Your task to perform on an android device: turn smart compose on in the gmail app Image 0: 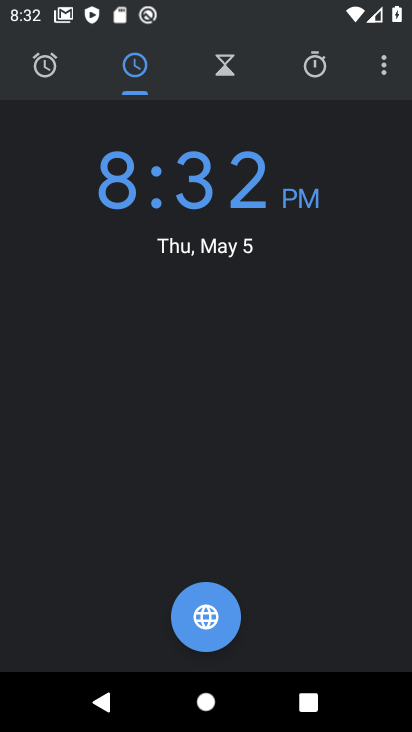
Step 0: press home button
Your task to perform on an android device: turn smart compose on in the gmail app Image 1: 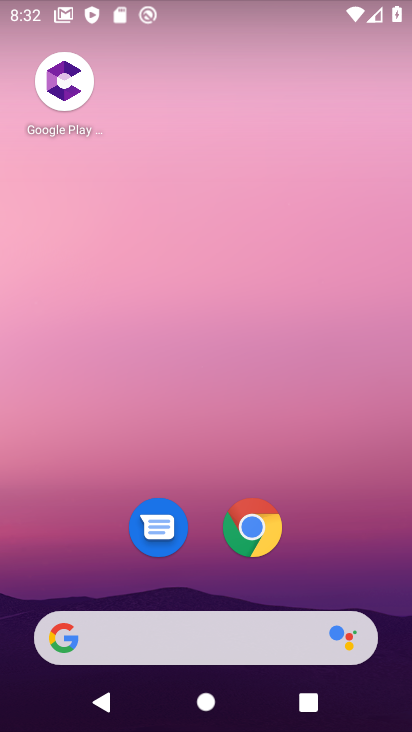
Step 1: drag from (298, 523) to (214, 22)
Your task to perform on an android device: turn smart compose on in the gmail app Image 2: 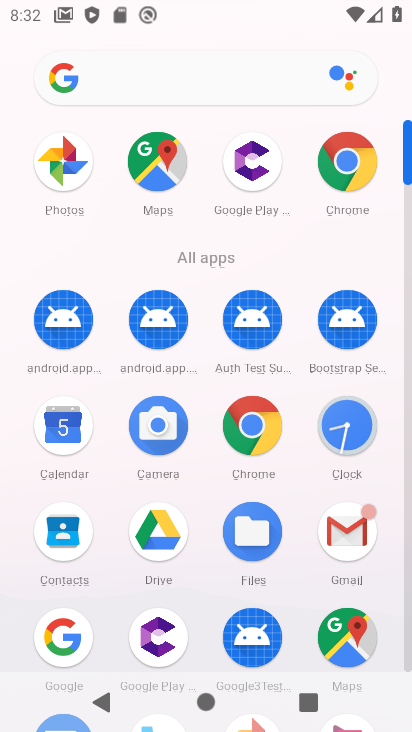
Step 2: click (338, 535)
Your task to perform on an android device: turn smart compose on in the gmail app Image 3: 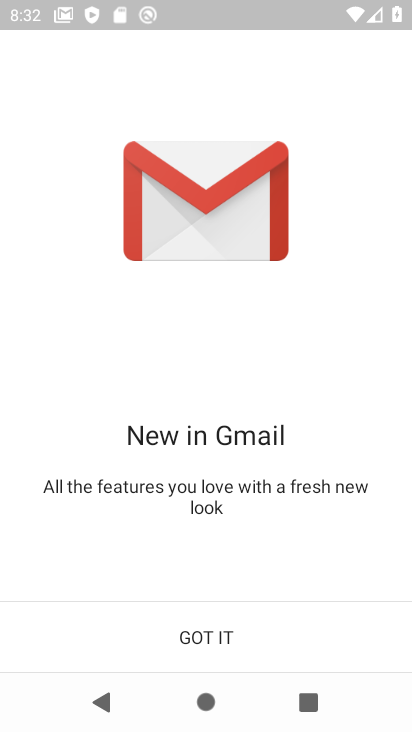
Step 3: click (212, 626)
Your task to perform on an android device: turn smart compose on in the gmail app Image 4: 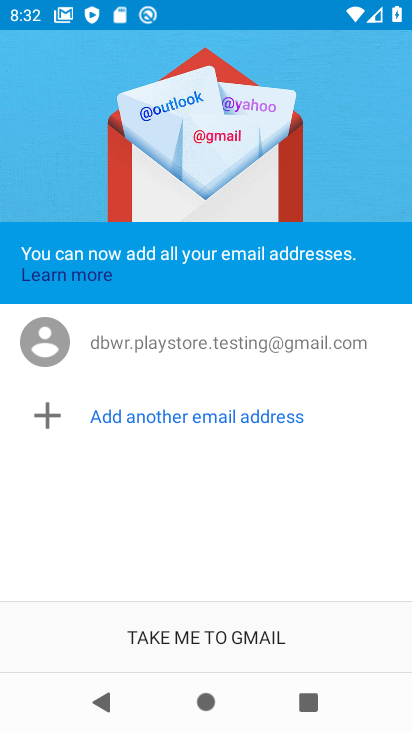
Step 4: click (182, 624)
Your task to perform on an android device: turn smart compose on in the gmail app Image 5: 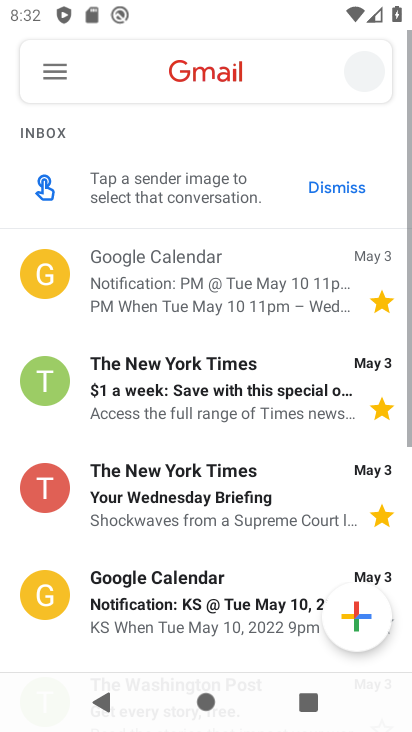
Step 5: click (46, 67)
Your task to perform on an android device: turn smart compose on in the gmail app Image 6: 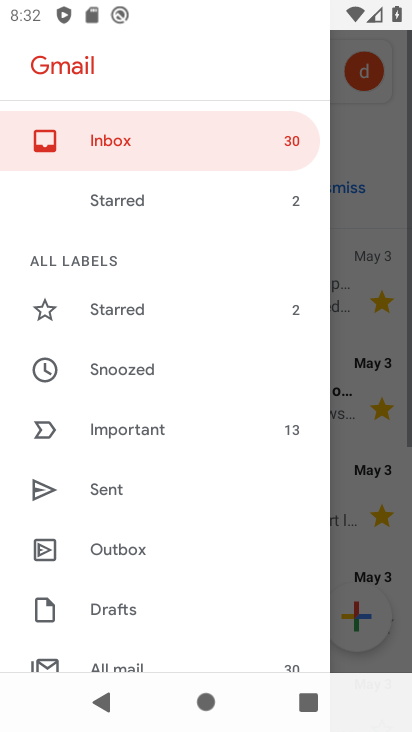
Step 6: drag from (153, 584) to (132, 280)
Your task to perform on an android device: turn smart compose on in the gmail app Image 7: 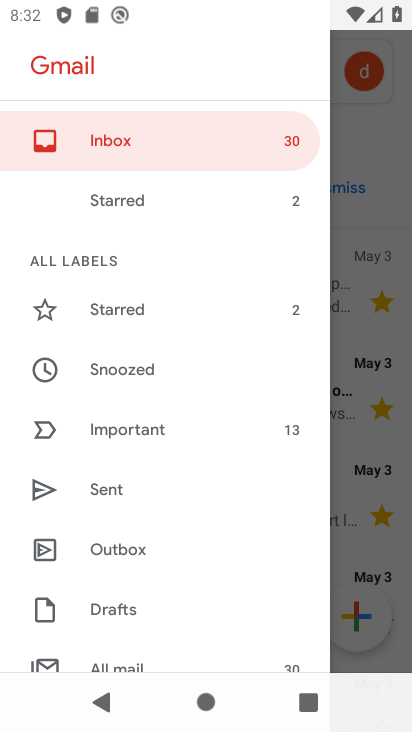
Step 7: drag from (190, 365) to (181, 124)
Your task to perform on an android device: turn smart compose on in the gmail app Image 8: 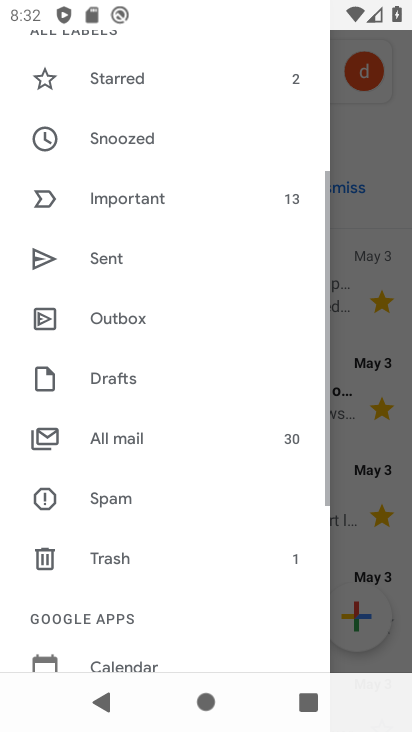
Step 8: drag from (189, 553) to (183, 76)
Your task to perform on an android device: turn smart compose on in the gmail app Image 9: 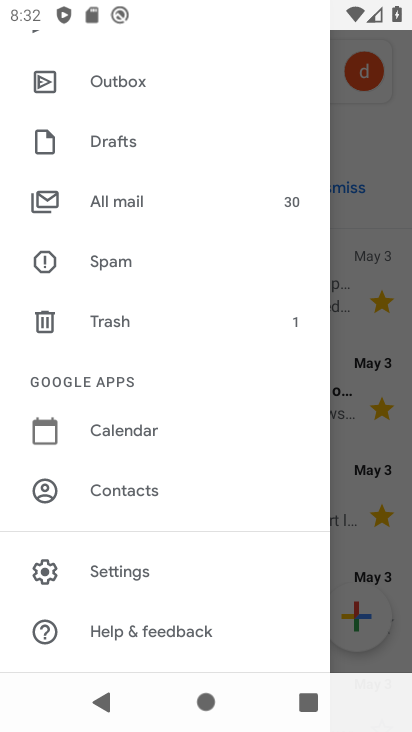
Step 9: click (115, 568)
Your task to perform on an android device: turn smart compose on in the gmail app Image 10: 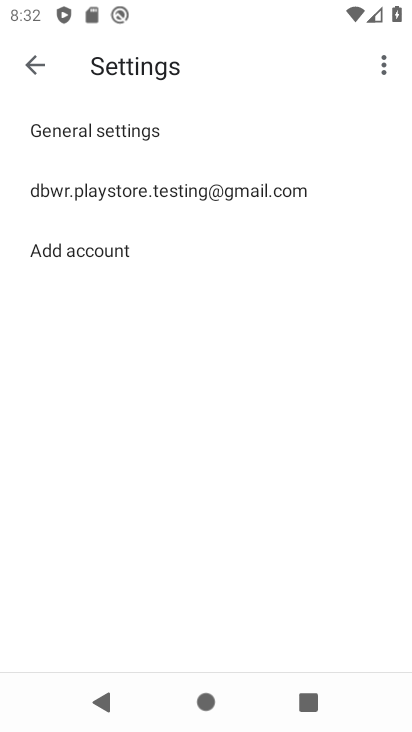
Step 10: click (93, 185)
Your task to perform on an android device: turn smart compose on in the gmail app Image 11: 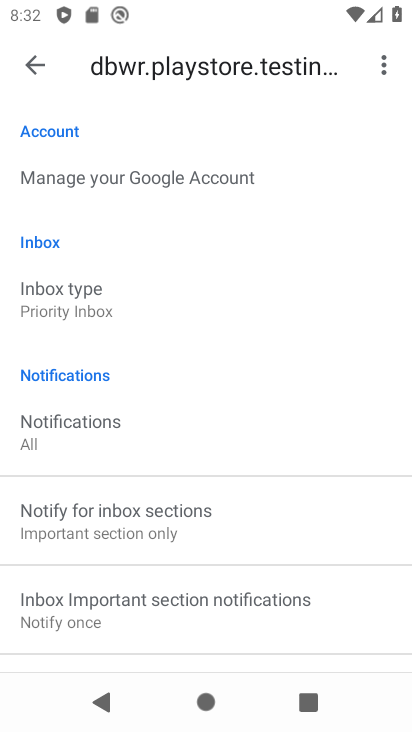
Step 11: click (34, 111)
Your task to perform on an android device: turn smart compose on in the gmail app Image 12: 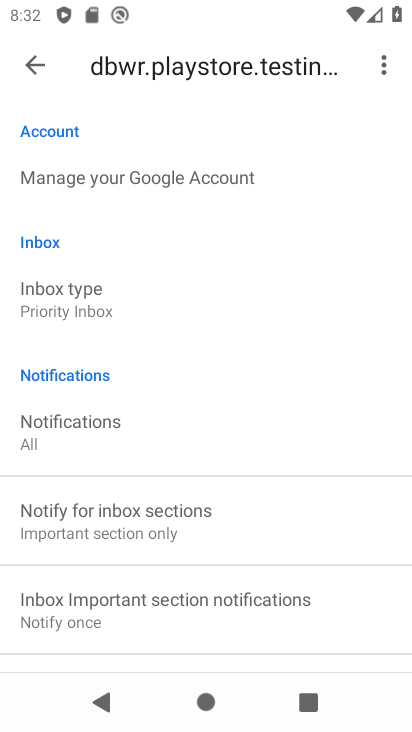
Step 12: drag from (117, 480) to (122, 152)
Your task to perform on an android device: turn smart compose on in the gmail app Image 13: 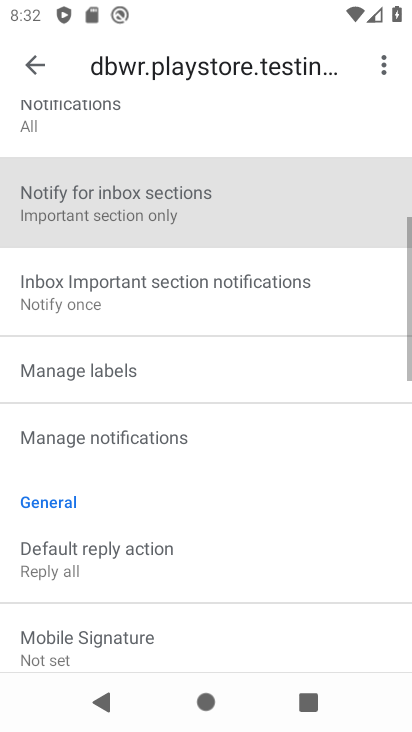
Step 13: drag from (157, 345) to (157, 292)
Your task to perform on an android device: turn smart compose on in the gmail app Image 14: 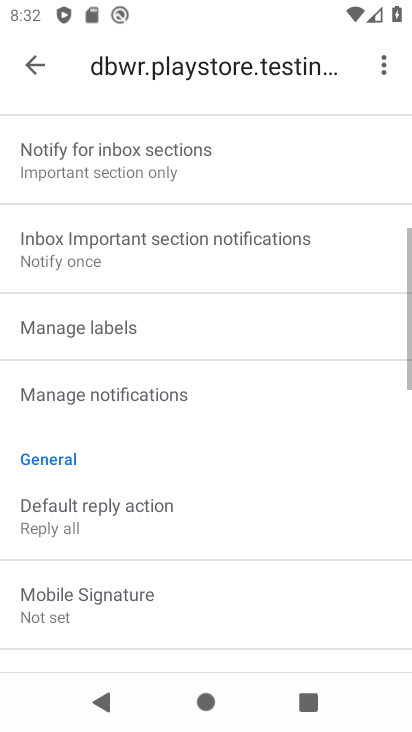
Step 14: click (154, 192)
Your task to perform on an android device: turn smart compose on in the gmail app Image 15: 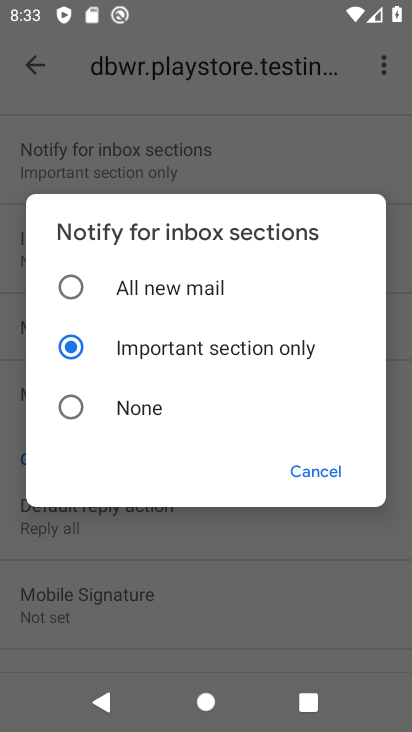
Step 15: click (344, 471)
Your task to perform on an android device: turn smart compose on in the gmail app Image 16: 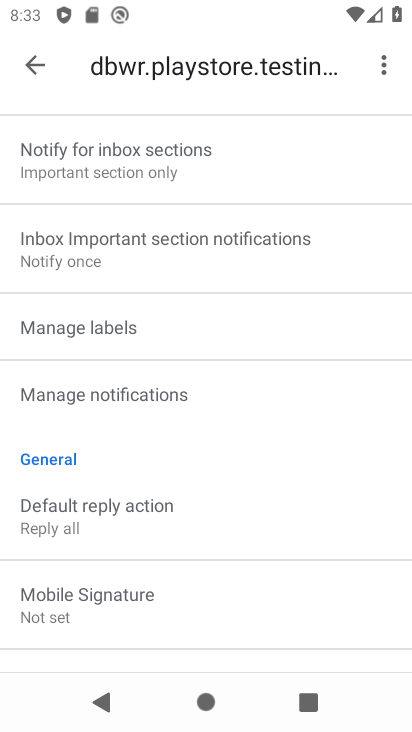
Step 16: click (96, 107)
Your task to perform on an android device: turn smart compose on in the gmail app Image 17: 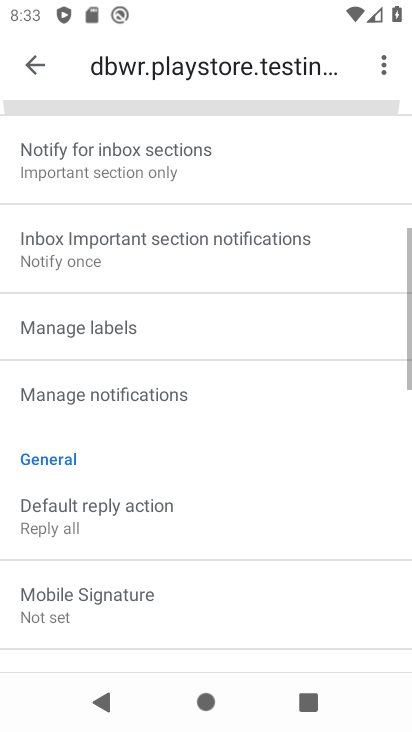
Step 17: click (143, 42)
Your task to perform on an android device: turn smart compose on in the gmail app Image 18: 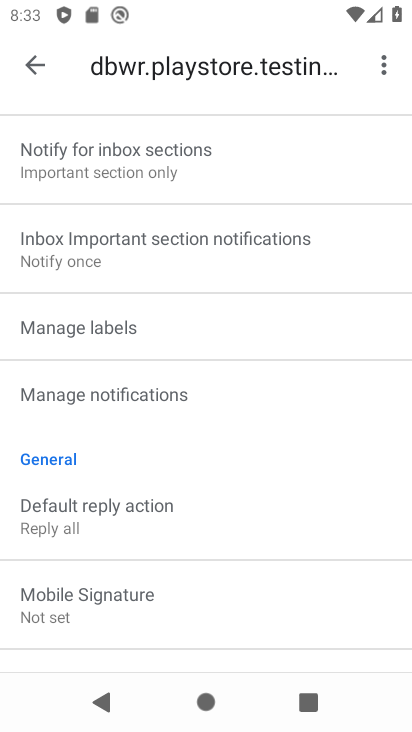
Step 18: drag from (124, 551) to (102, 193)
Your task to perform on an android device: turn smart compose on in the gmail app Image 19: 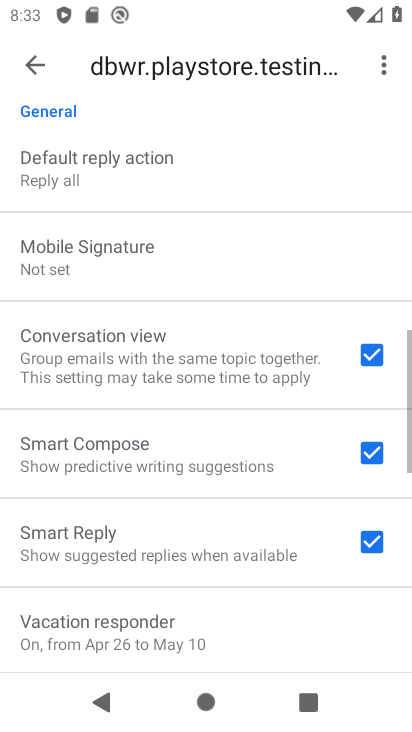
Step 19: drag from (108, 525) to (103, 115)
Your task to perform on an android device: turn smart compose on in the gmail app Image 20: 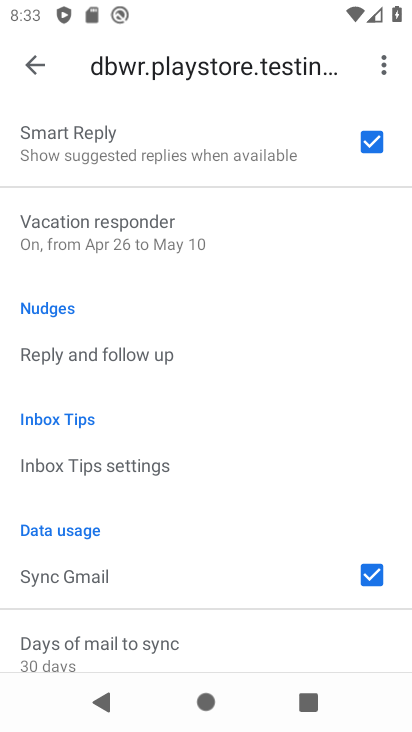
Step 20: click (27, 68)
Your task to perform on an android device: turn smart compose on in the gmail app Image 21: 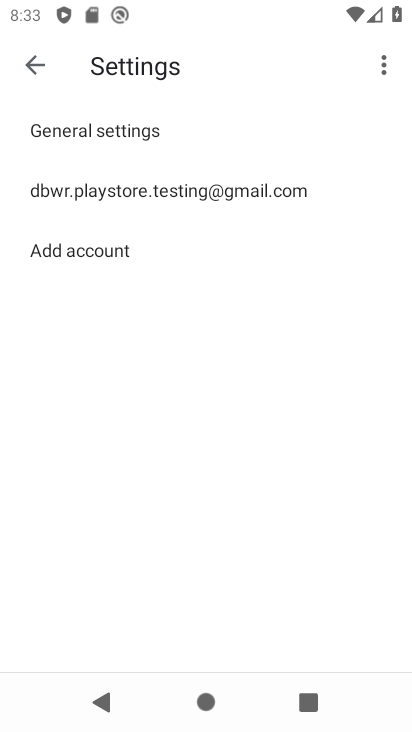
Step 21: click (96, 194)
Your task to perform on an android device: turn smart compose on in the gmail app Image 22: 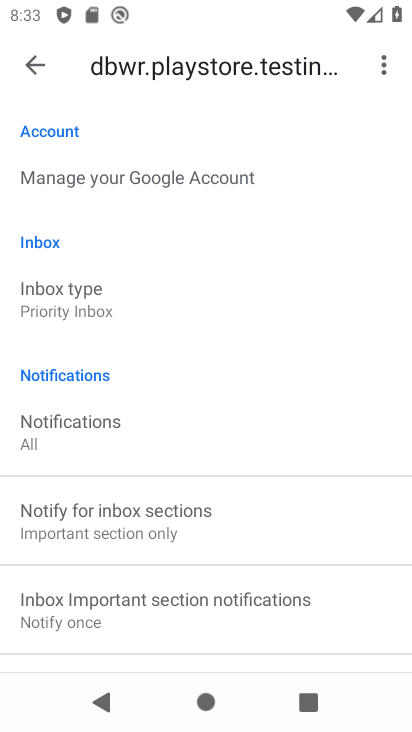
Step 22: click (168, 54)
Your task to perform on an android device: turn smart compose on in the gmail app Image 23: 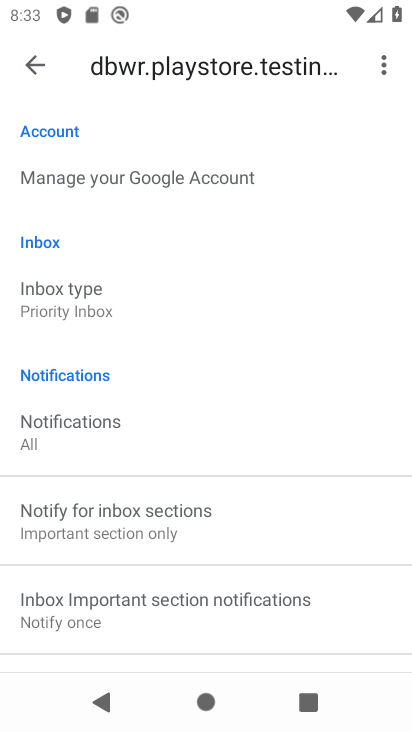
Step 23: drag from (231, 351) to (234, 58)
Your task to perform on an android device: turn smart compose on in the gmail app Image 24: 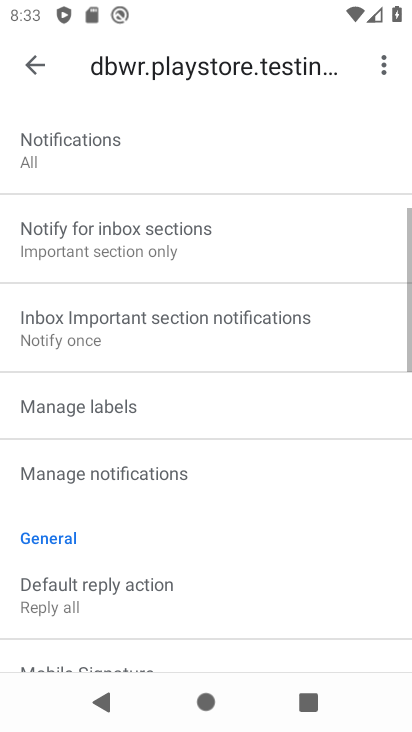
Step 24: click (200, 132)
Your task to perform on an android device: turn smart compose on in the gmail app Image 25: 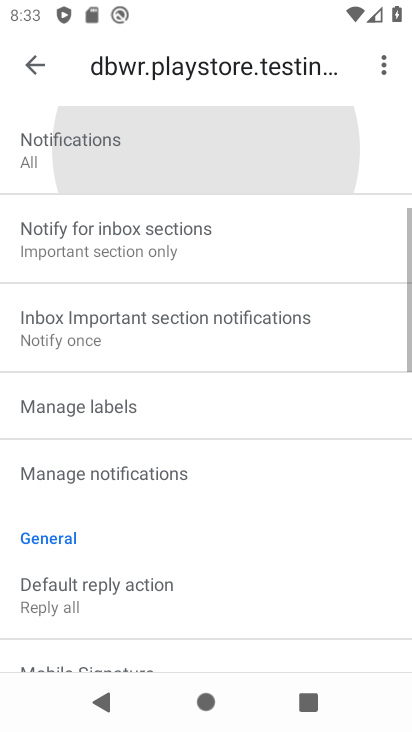
Step 25: drag from (147, 497) to (120, 83)
Your task to perform on an android device: turn smart compose on in the gmail app Image 26: 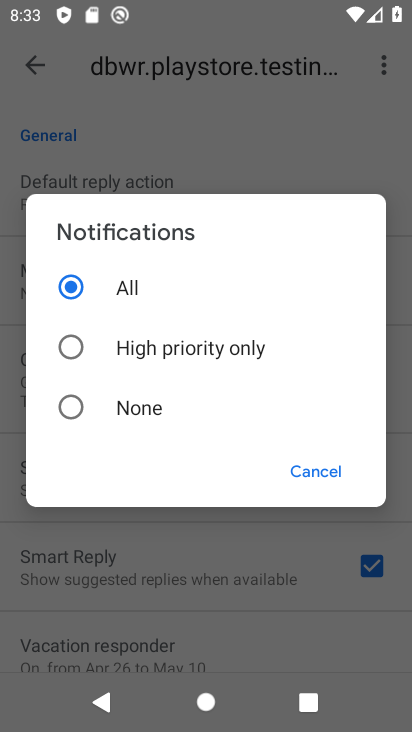
Step 26: click (314, 473)
Your task to perform on an android device: turn smart compose on in the gmail app Image 27: 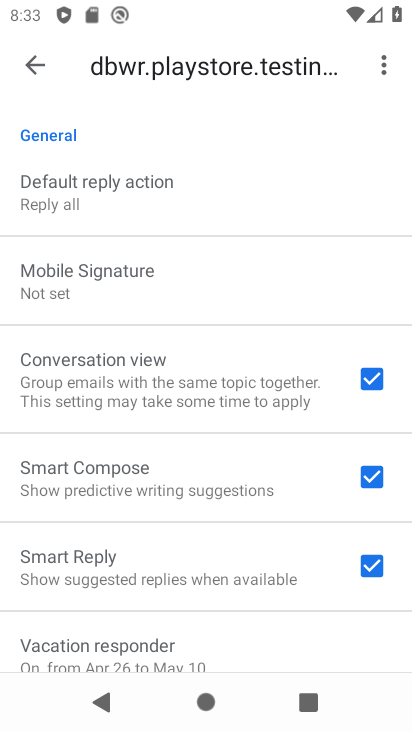
Step 27: click (324, 466)
Your task to perform on an android device: turn smart compose on in the gmail app Image 28: 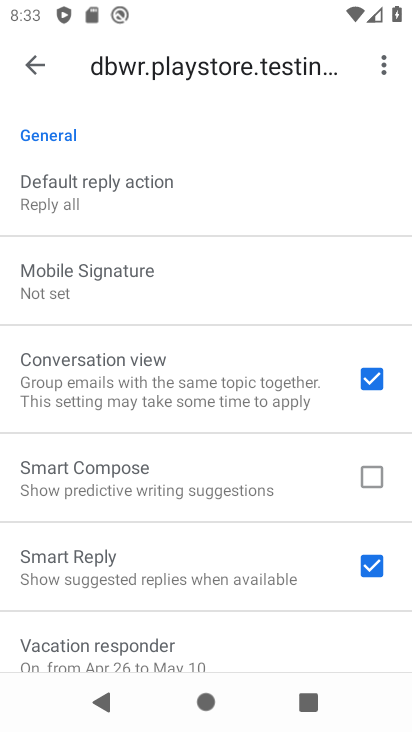
Step 28: click (364, 478)
Your task to perform on an android device: turn smart compose on in the gmail app Image 29: 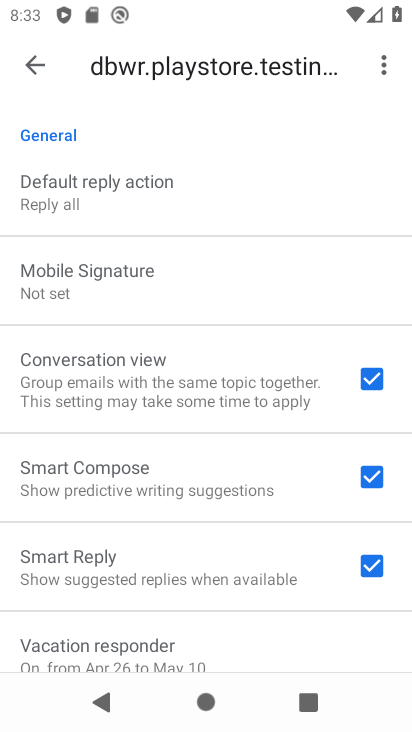
Step 29: task complete